Your task to perform on an android device: Go to internet settings Image 0: 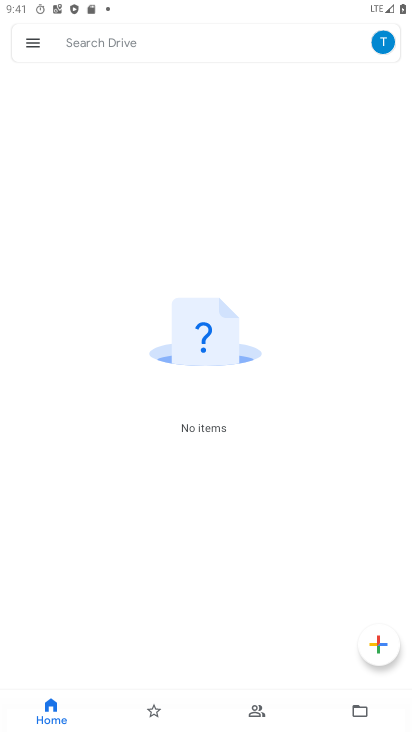
Step 0: press home button
Your task to perform on an android device: Go to internet settings Image 1: 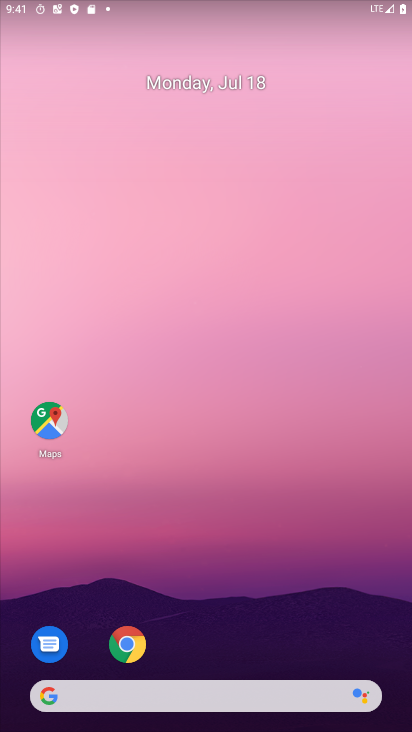
Step 1: drag from (178, 666) to (157, 4)
Your task to perform on an android device: Go to internet settings Image 2: 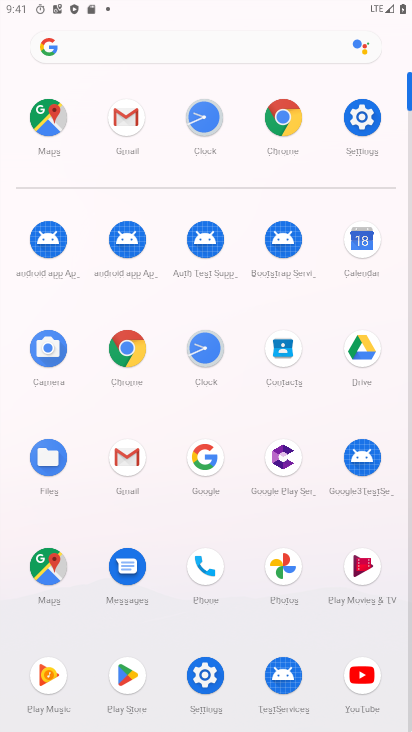
Step 2: click (193, 678)
Your task to perform on an android device: Go to internet settings Image 3: 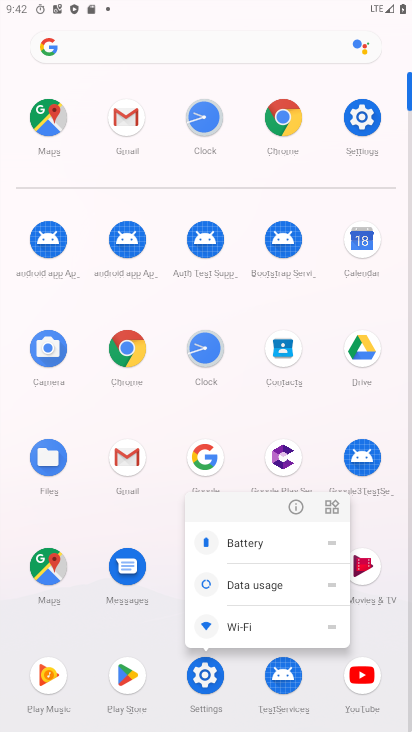
Step 3: click (220, 666)
Your task to perform on an android device: Go to internet settings Image 4: 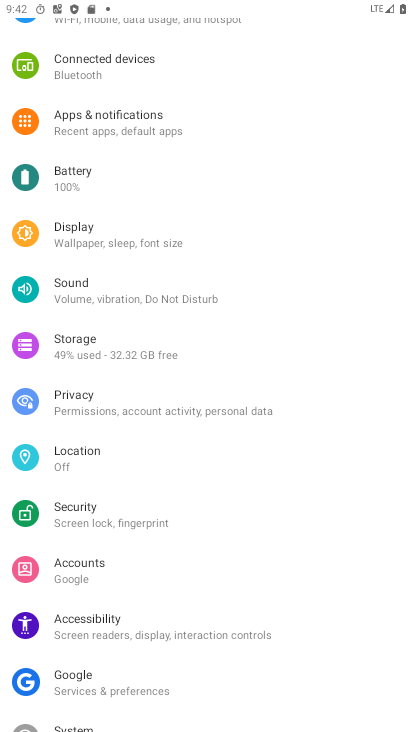
Step 4: drag from (109, 77) to (82, 591)
Your task to perform on an android device: Go to internet settings Image 5: 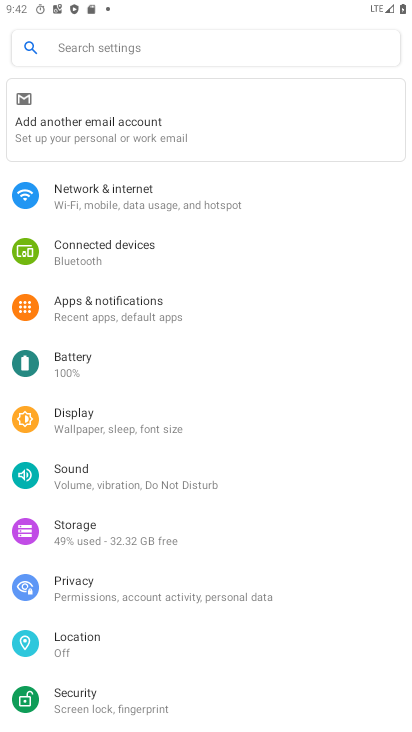
Step 5: click (97, 215)
Your task to perform on an android device: Go to internet settings Image 6: 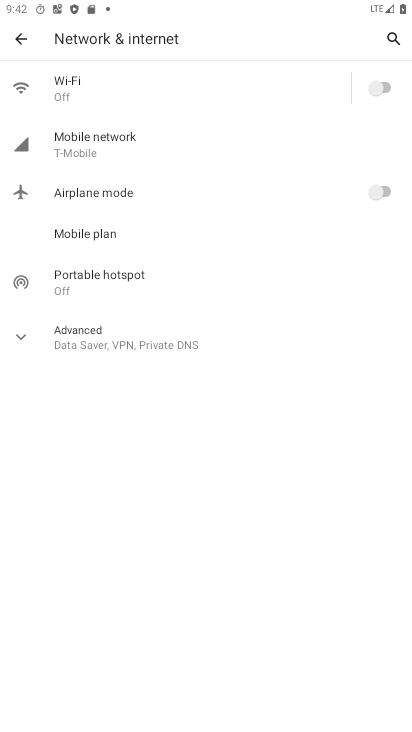
Step 6: click (72, 140)
Your task to perform on an android device: Go to internet settings Image 7: 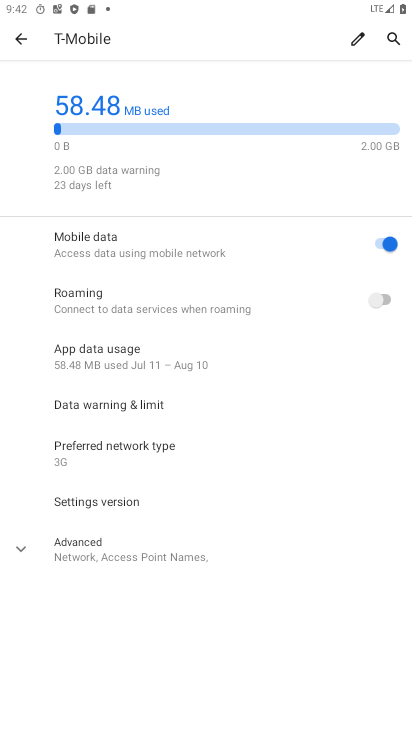
Step 7: task complete